Your task to perform on an android device: change alarm snooze length Image 0: 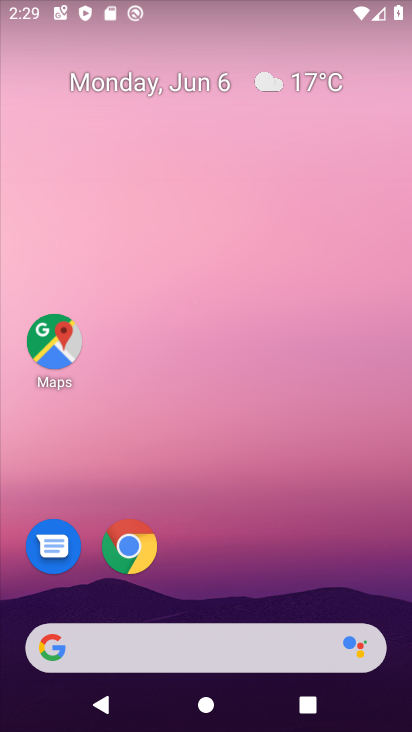
Step 0: drag from (333, 581) to (82, 6)
Your task to perform on an android device: change alarm snooze length Image 1: 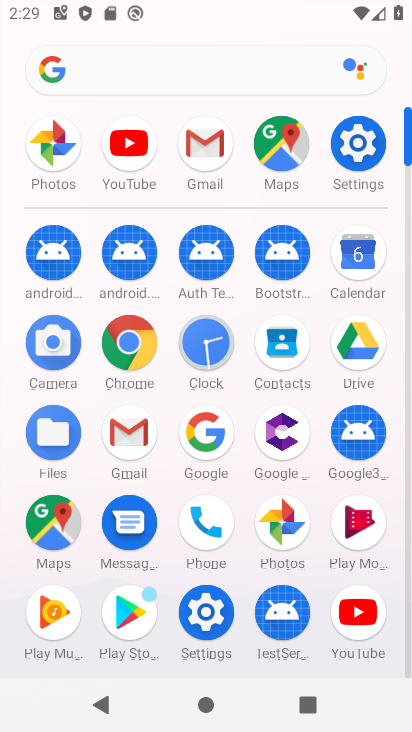
Step 1: click (220, 351)
Your task to perform on an android device: change alarm snooze length Image 2: 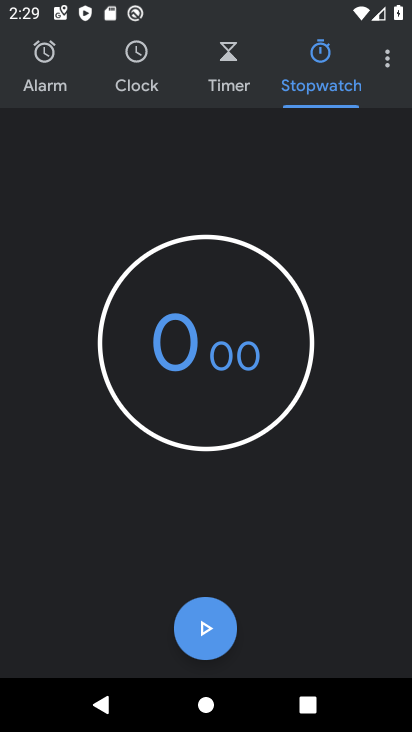
Step 2: click (381, 52)
Your task to perform on an android device: change alarm snooze length Image 3: 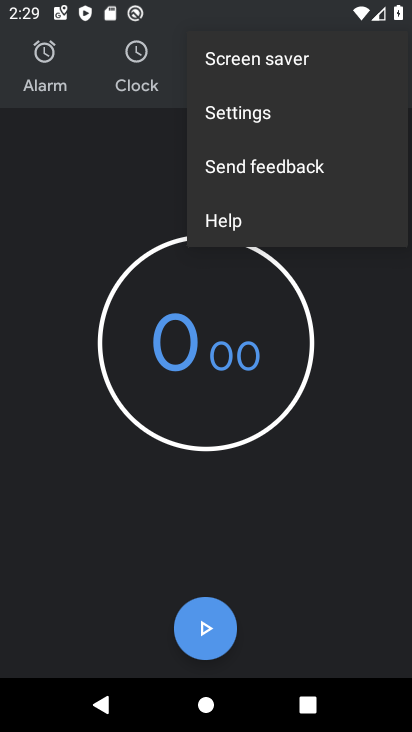
Step 3: click (292, 106)
Your task to perform on an android device: change alarm snooze length Image 4: 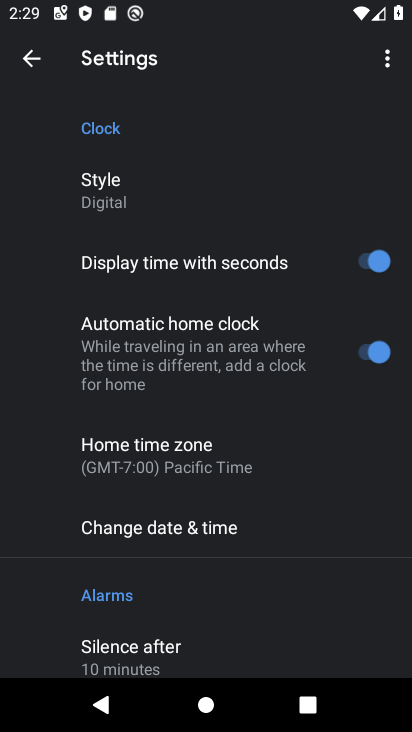
Step 4: drag from (168, 590) to (178, 402)
Your task to perform on an android device: change alarm snooze length Image 5: 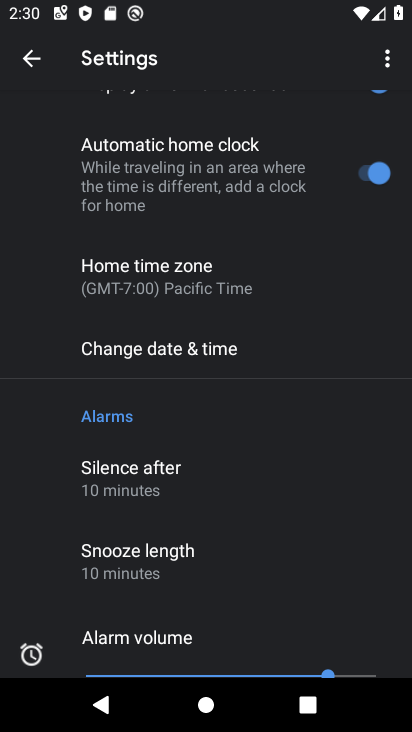
Step 5: click (138, 582)
Your task to perform on an android device: change alarm snooze length Image 6: 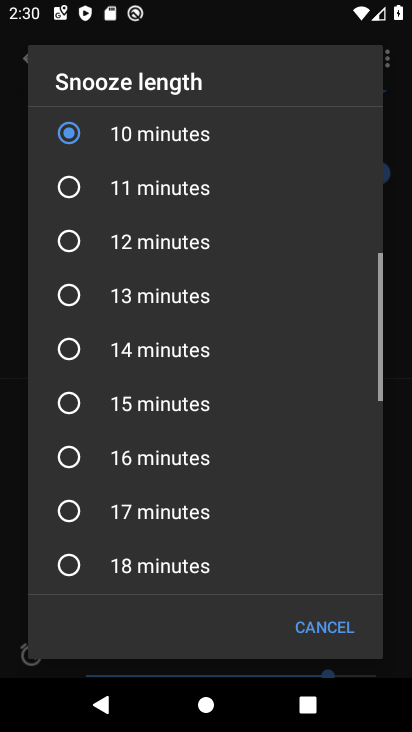
Step 6: click (181, 457)
Your task to perform on an android device: change alarm snooze length Image 7: 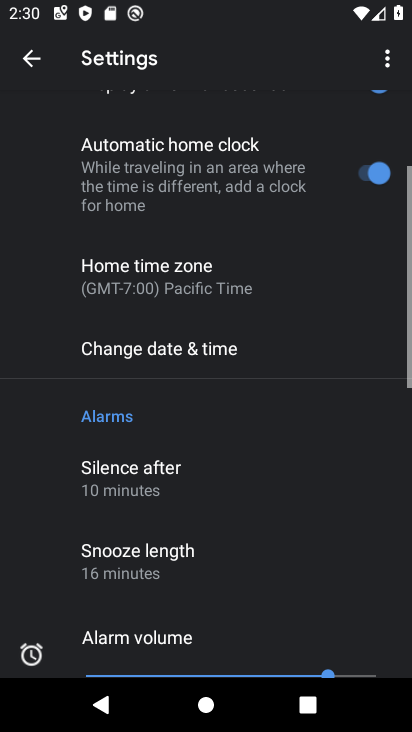
Step 7: task complete